Your task to perform on an android device: Open notification settings Image 0: 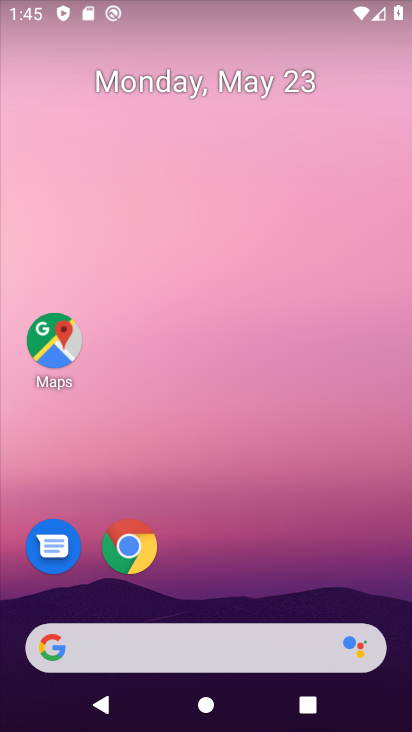
Step 0: drag from (250, 519) to (269, 90)
Your task to perform on an android device: Open notification settings Image 1: 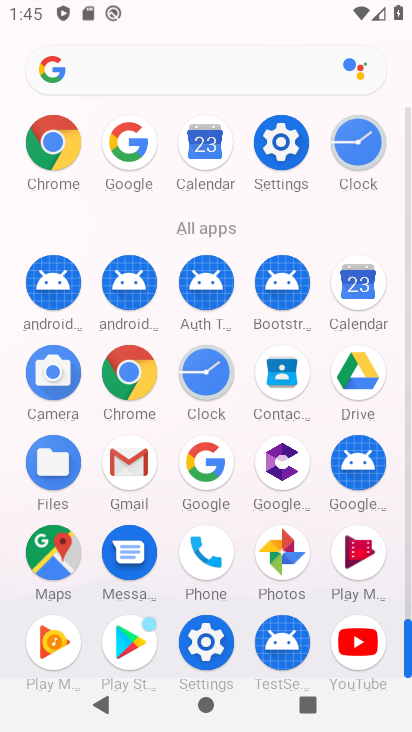
Step 1: click (278, 119)
Your task to perform on an android device: Open notification settings Image 2: 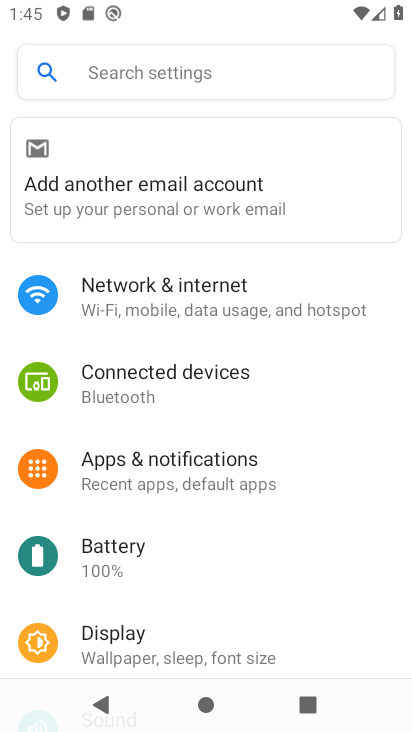
Step 2: click (227, 488)
Your task to perform on an android device: Open notification settings Image 3: 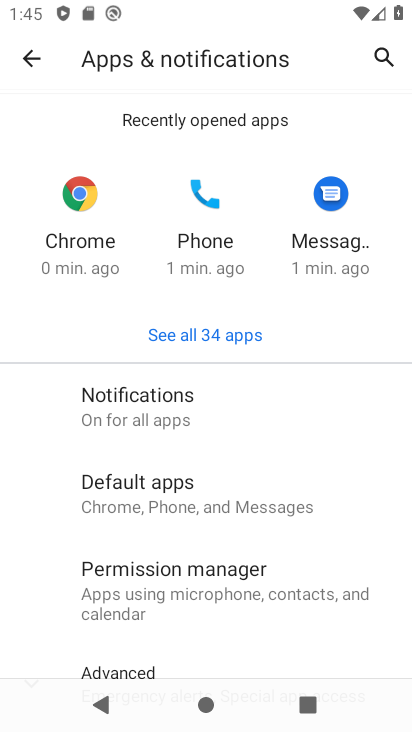
Step 3: click (160, 397)
Your task to perform on an android device: Open notification settings Image 4: 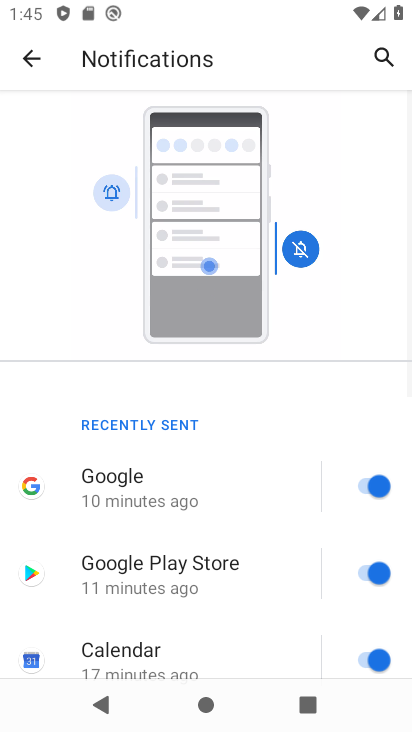
Step 4: task complete